Your task to perform on an android device: turn off notifications settings in the gmail app Image 0: 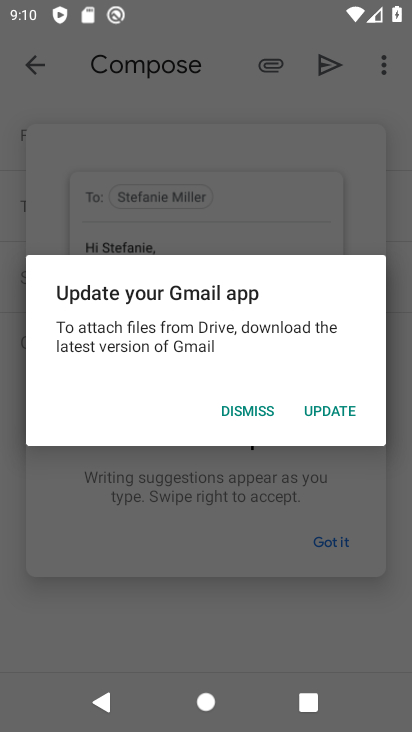
Step 0: press home button
Your task to perform on an android device: turn off notifications settings in the gmail app Image 1: 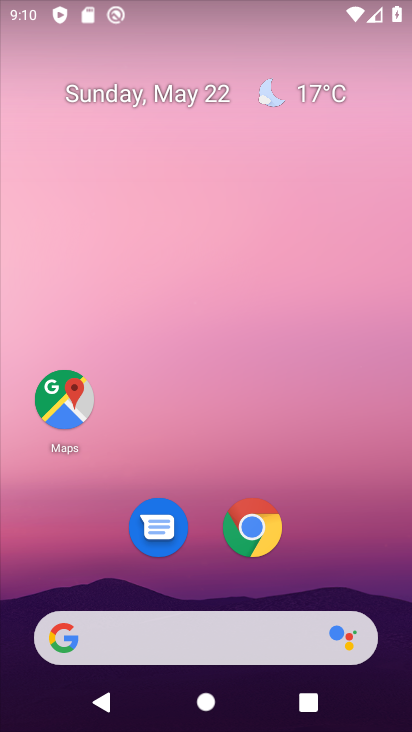
Step 1: drag from (338, 515) to (204, 21)
Your task to perform on an android device: turn off notifications settings in the gmail app Image 2: 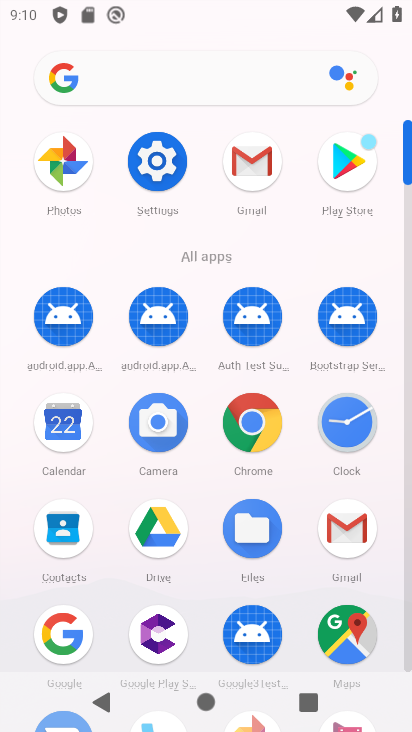
Step 2: click (247, 165)
Your task to perform on an android device: turn off notifications settings in the gmail app Image 3: 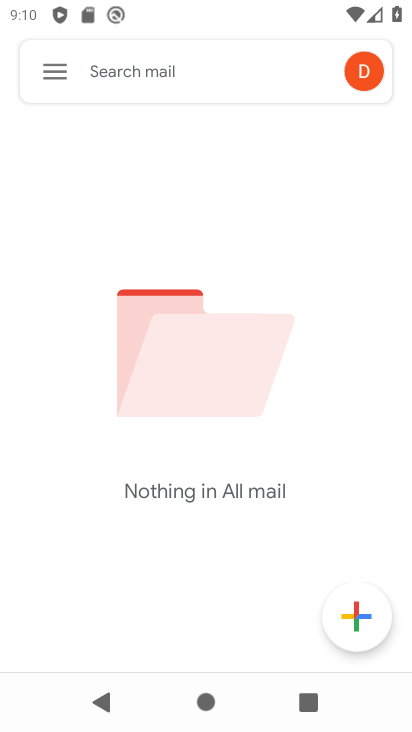
Step 3: click (53, 65)
Your task to perform on an android device: turn off notifications settings in the gmail app Image 4: 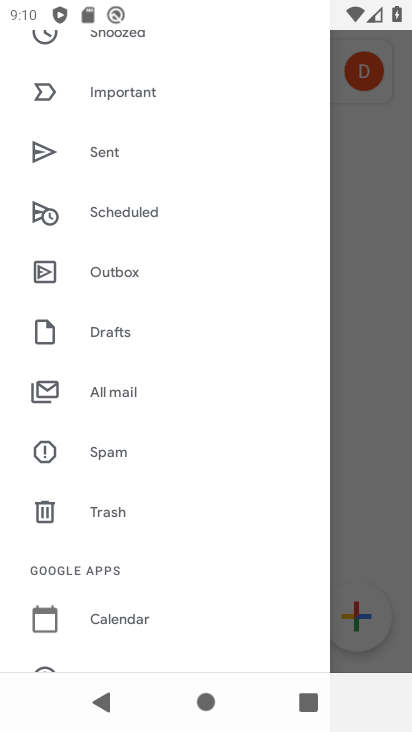
Step 4: drag from (163, 554) to (127, 5)
Your task to perform on an android device: turn off notifications settings in the gmail app Image 5: 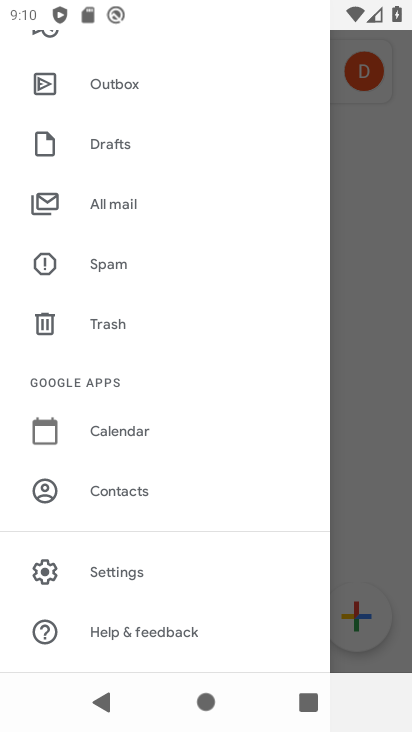
Step 5: click (108, 574)
Your task to perform on an android device: turn off notifications settings in the gmail app Image 6: 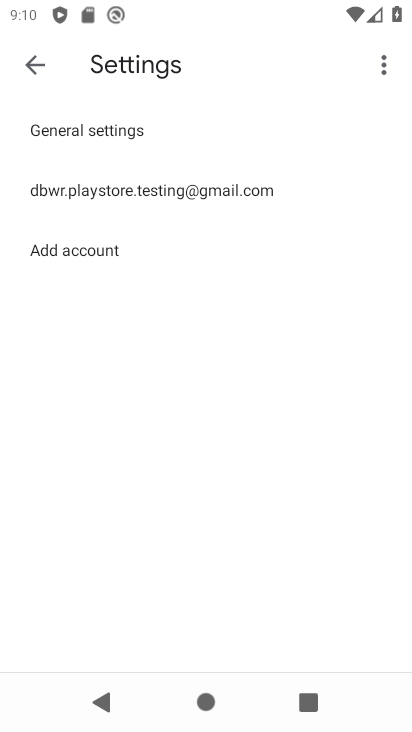
Step 6: click (73, 127)
Your task to perform on an android device: turn off notifications settings in the gmail app Image 7: 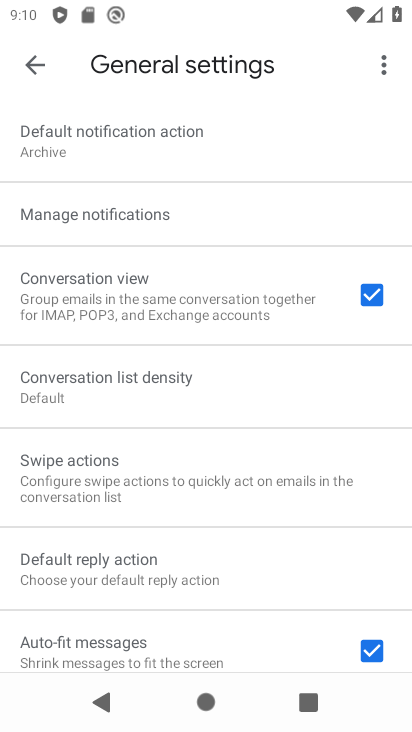
Step 7: click (103, 210)
Your task to perform on an android device: turn off notifications settings in the gmail app Image 8: 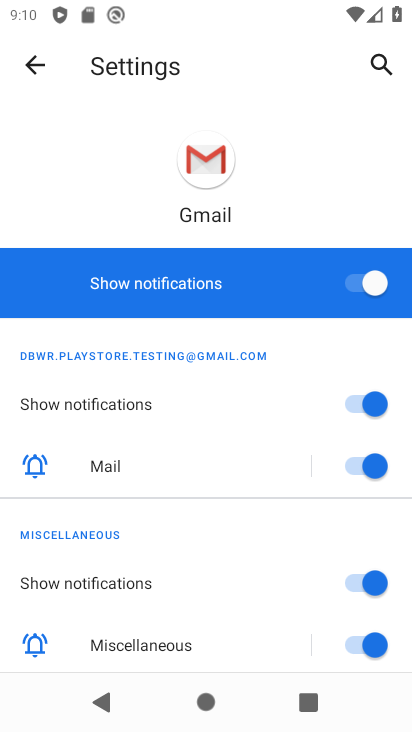
Step 8: click (373, 285)
Your task to perform on an android device: turn off notifications settings in the gmail app Image 9: 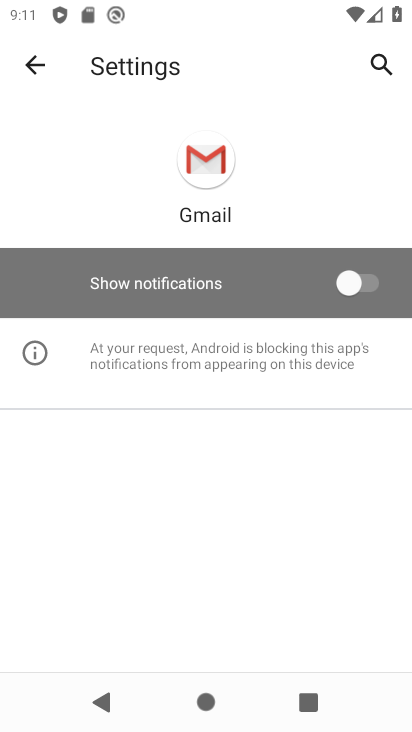
Step 9: task complete